Your task to perform on an android device: turn off picture-in-picture Image 0: 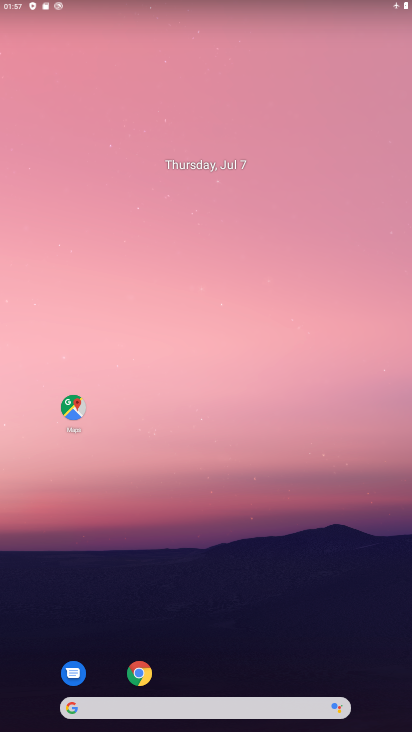
Step 0: drag from (185, 670) to (212, 227)
Your task to perform on an android device: turn off picture-in-picture Image 1: 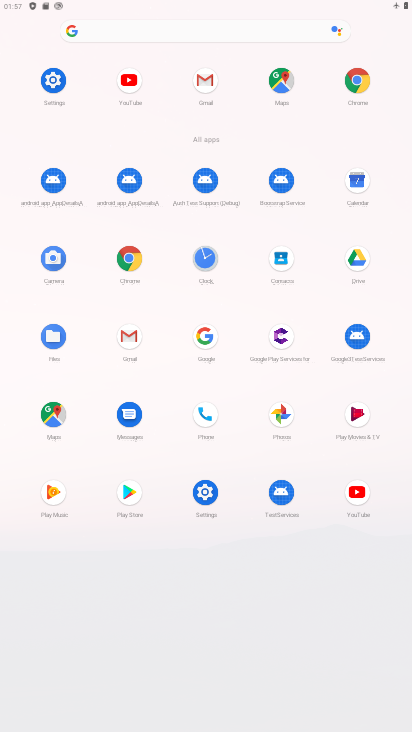
Step 1: click (357, 89)
Your task to perform on an android device: turn off picture-in-picture Image 2: 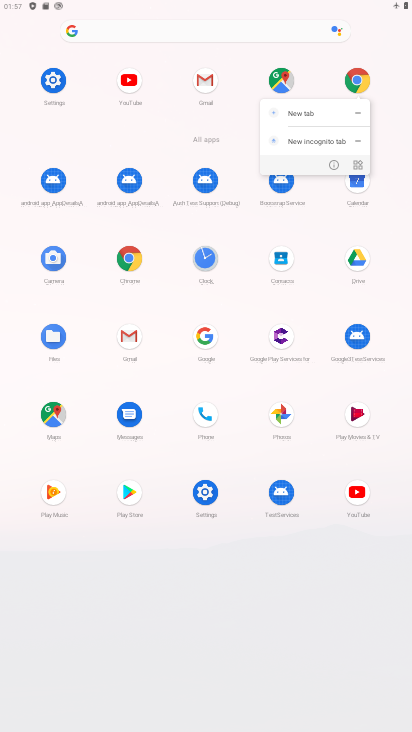
Step 2: click (334, 165)
Your task to perform on an android device: turn off picture-in-picture Image 3: 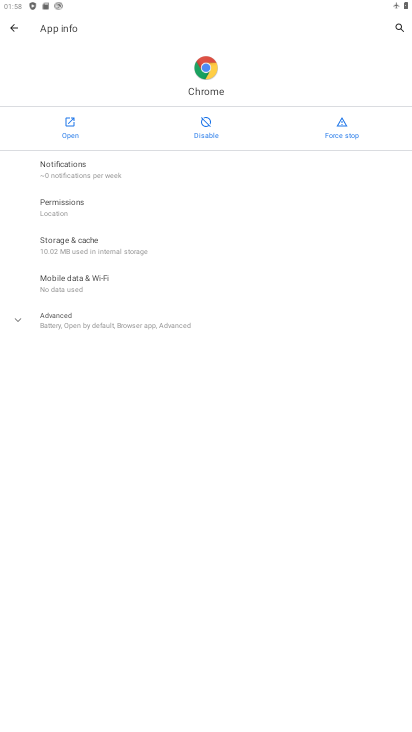
Step 3: click (65, 329)
Your task to perform on an android device: turn off picture-in-picture Image 4: 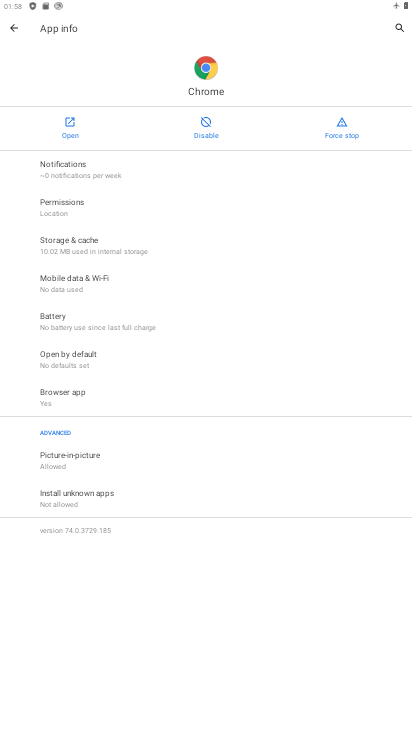
Step 4: click (127, 462)
Your task to perform on an android device: turn off picture-in-picture Image 5: 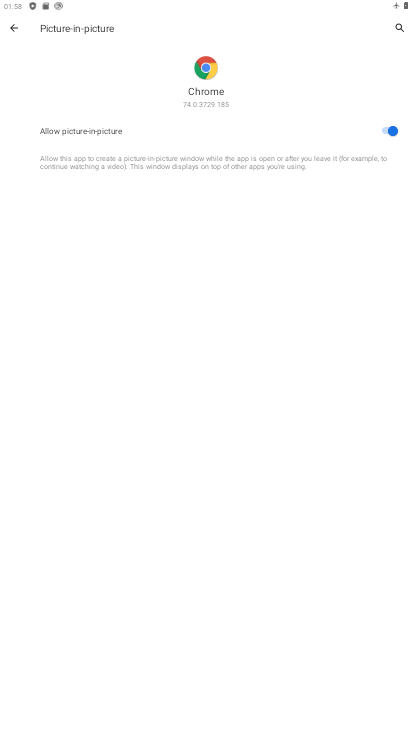
Step 5: click (383, 123)
Your task to perform on an android device: turn off picture-in-picture Image 6: 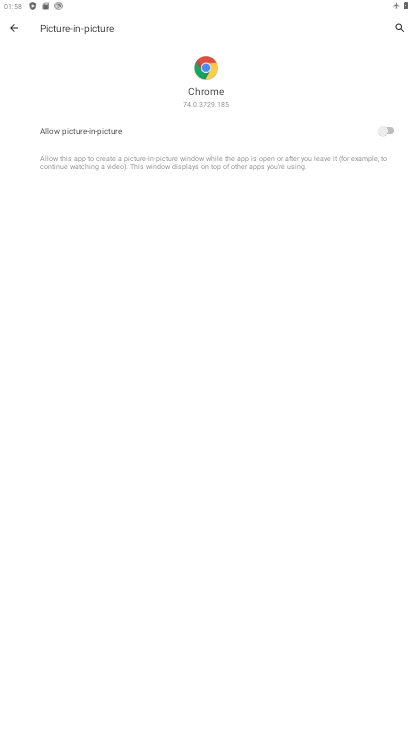
Step 6: task complete